Your task to perform on an android device: Open settings Image 0: 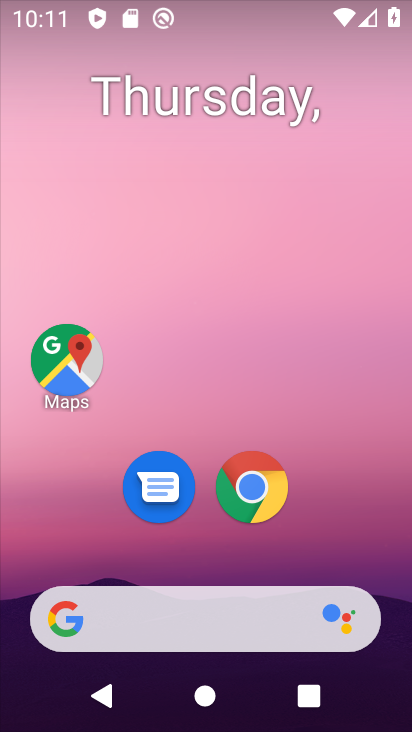
Step 0: drag from (329, 518) to (229, 278)
Your task to perform on an android device: Open settings Image 1: 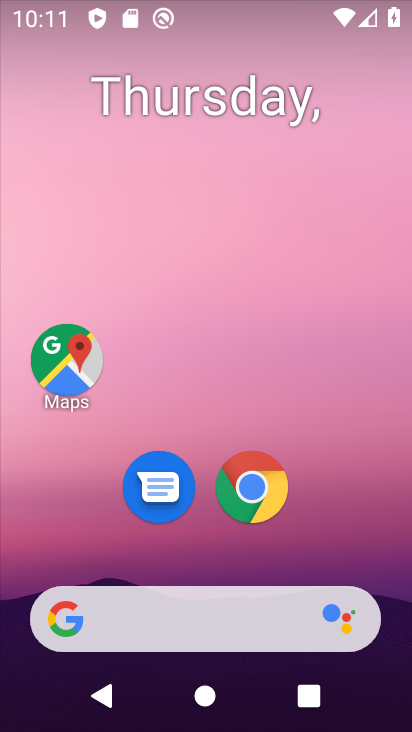
Step 1: drag from (309, 538) to (147, 173)
Your task to perform on an android device: Open settings Image 2: 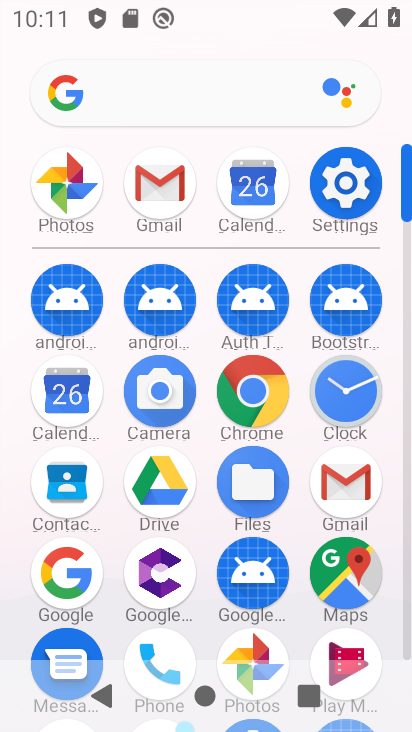
Step 2: click (355, 198)
Your task to perform on an android device: Open settings Image 3: 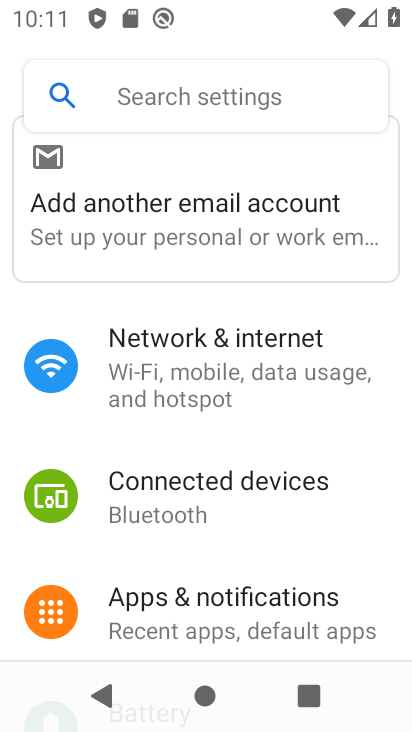
Step 3: task complete